Your task to perform on an android device: Search for "macbook pro" on costco, select the first entry, and add it to the cart. Image 0: 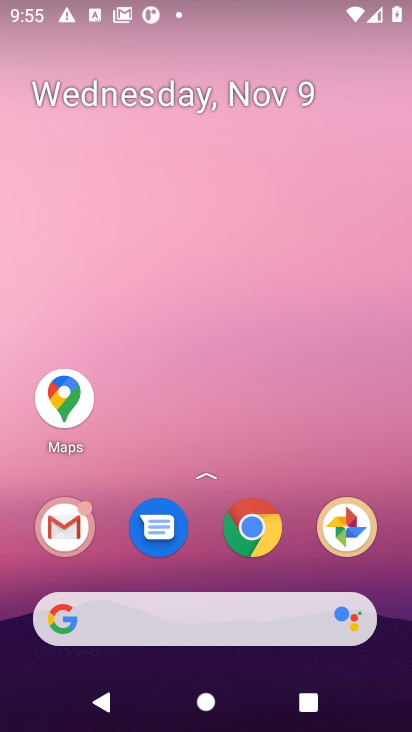
Step 0: click (262, 529)
Your task to perform on an android device: Search for "macbook pro" on costco, select the first entry, and add it to the cart. Image 1: 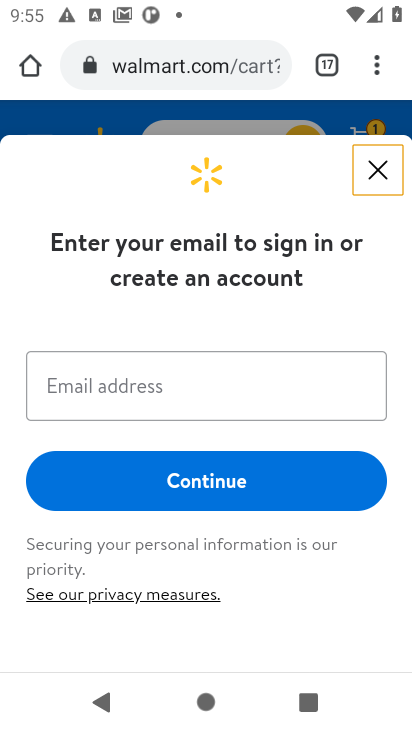
Step 1: click (181, 70)
Your task to perform on an android device: Search for "macbook pro" on costco, select the first entry, and add it to the cart. Image 2: 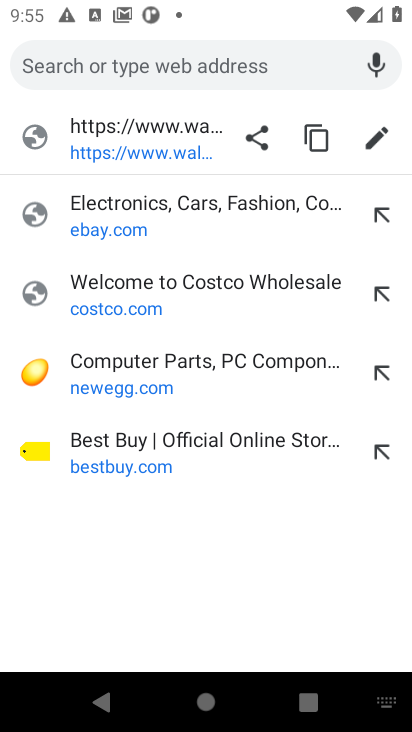
Step 2: click (124, 287)
Your task to perform on an android device: Search for "macbook pro" on costco, select the first entry, and add it to the cart. Image 3: 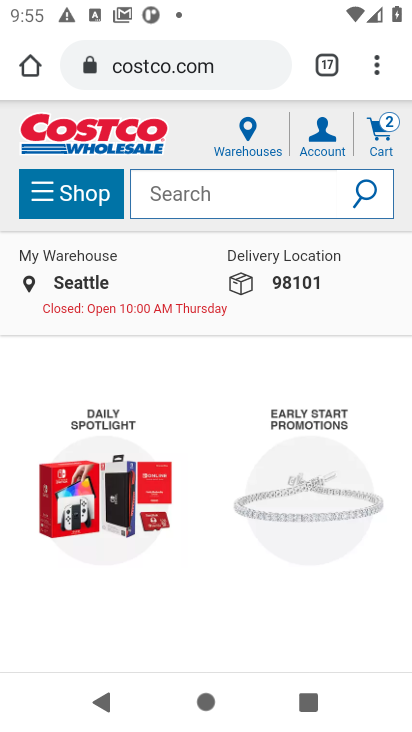
Step 3: click (178, 189)
Your task to perform on an android device: Search for "macbook pro" on costco, select the first entry, and add it to the cart. Image 4: 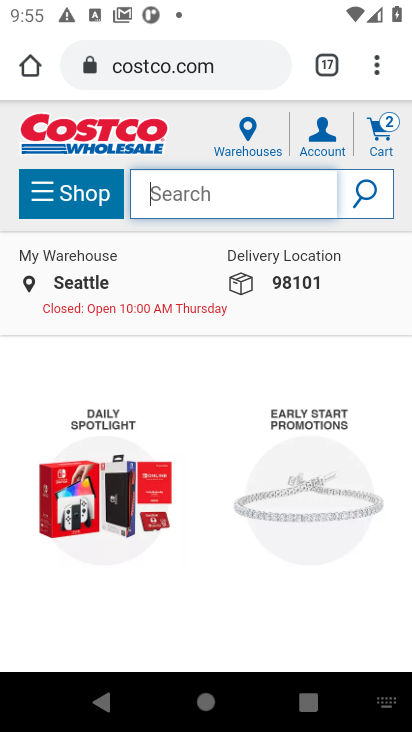
Step 4: type "macbook pro"
Your task to perform on an android device: Search for "macbook pro" on costco, select the first entry, and add it to the cart. Image 5: 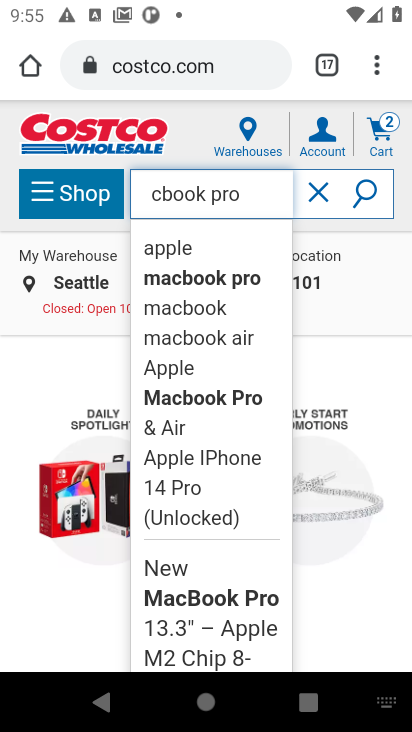
Step 5: click (364, 193)
Your task to perform on an android device: Search for "macbook pro" on costco, select the first entry, and add it to the cart. Image 6: 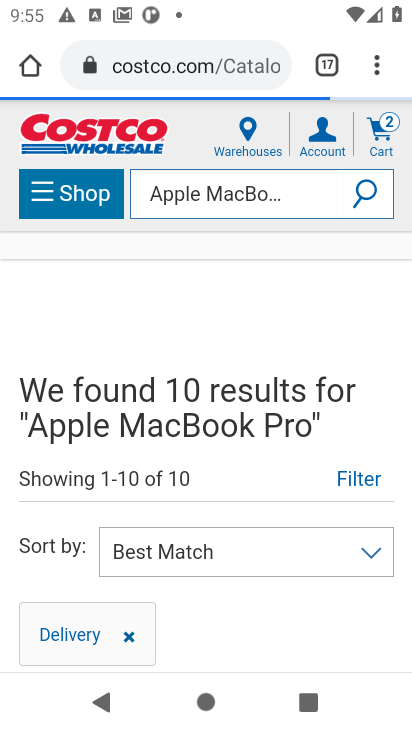
Step 6: drag from (203, 500) to (209, 213)
Your task to perform on an android device: Search for "macbook pro" on costco, select the first entry, and add it to the cart. Image 7: 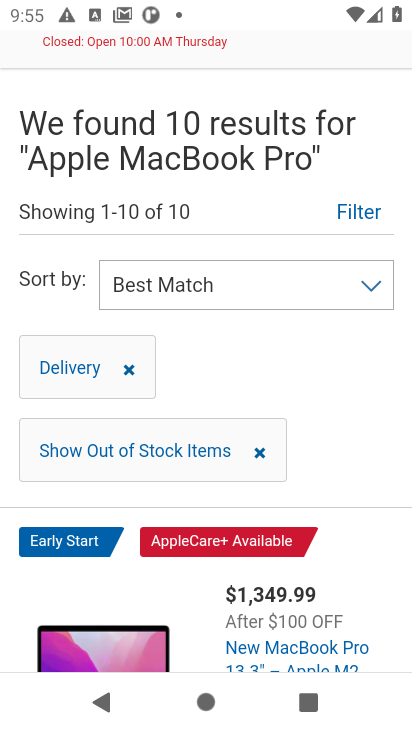
Step 7: drag from (212, 444) to (212, 201)
Your task to perform on an android device: Search for "macbook pro" on costco, select the first entry, and add it to the cart. Image 8: 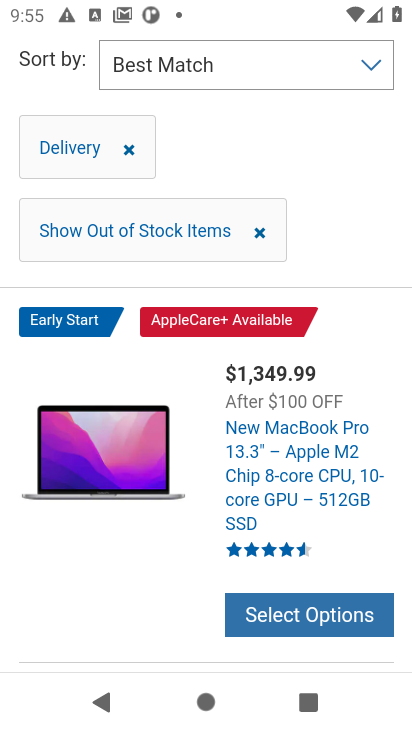
Step 8: click (219, 494)
Your task to perform on an android device: Search for "macbook pro" on costco, select the first entry, and add it to the cart. Image 9: 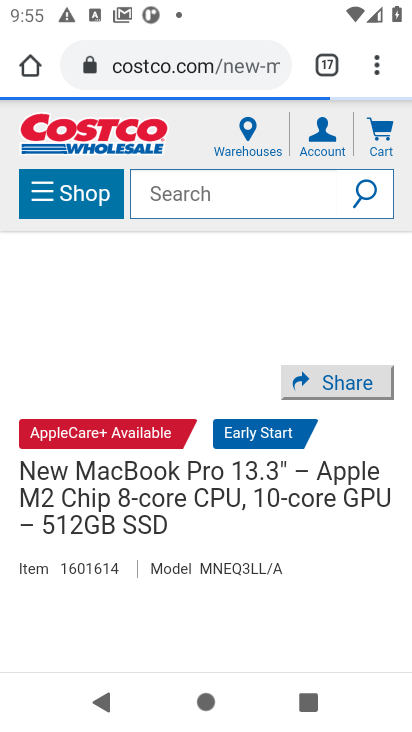
Step 9: drag from (207, 507) to (212, 162)
Your task to perform on an android device: Search for "macbook pro" on costco, select the first entry, and add it to the cart. Image 10: 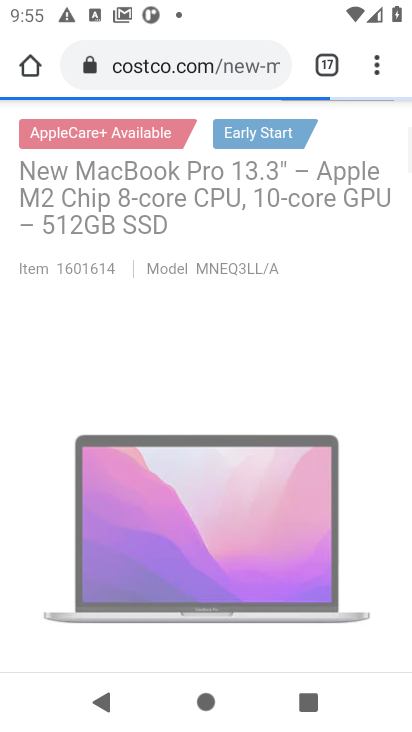
Step 10: drag from (190, 464) to (178, 173)
Your task to perform on an android device: Search for "macbook pro" on costco, select the first entry, and add it to the cart. Image 11: 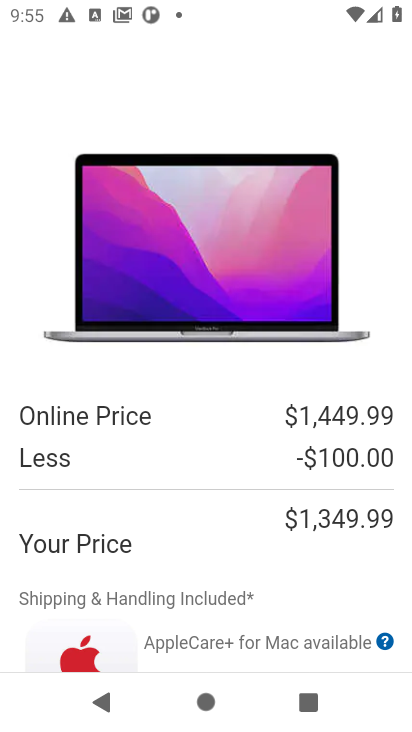
Step 11: drag from (173, 488) to (166, 150)
Your task to perform on an android device: Search for "macbook pro" on costco, select the first entry, and add it to the cart. Image 12: 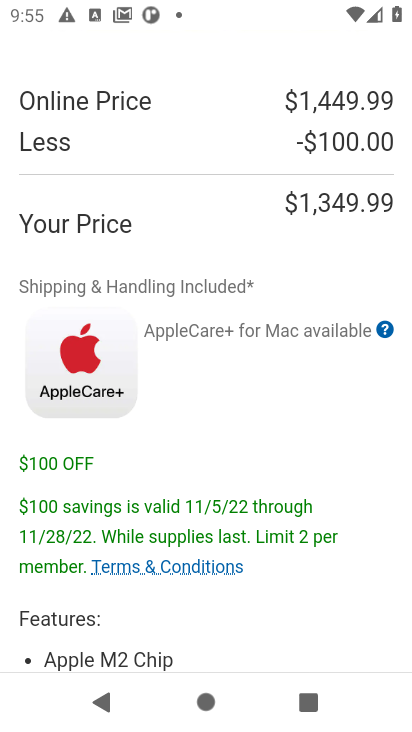
Step 12: drag from (166, 420) to (161, 160)
Your task to perform on an android device: Search for "macbook pro" on costco, select the first entry, and add it to the cart. Image 13: 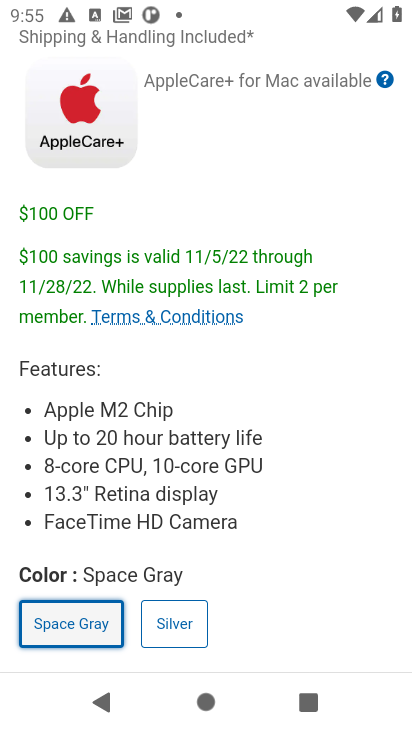
Step 13: drag from (182, 417) to (180, 148)
Your task to perform on an android device: Search for "macbook pro" on costco, select the first entry, and add it to the cart. Image 14: 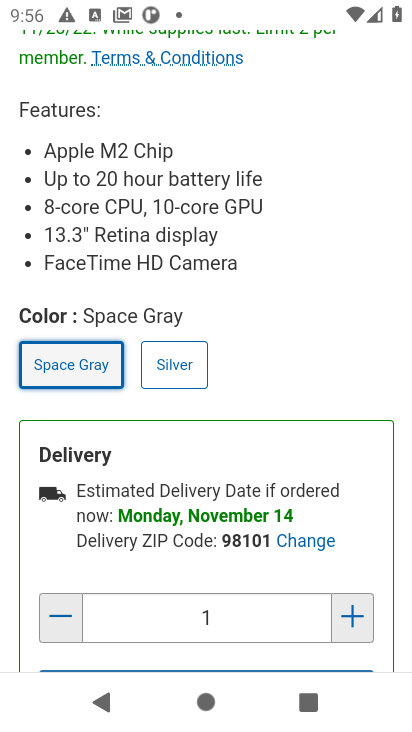
Step 14: drag from (196, 521) to (196, 219)
Your task to perform on an android device: Search for "macbook pro" on costco, select the first entry, and add it to the cart. Image 15: 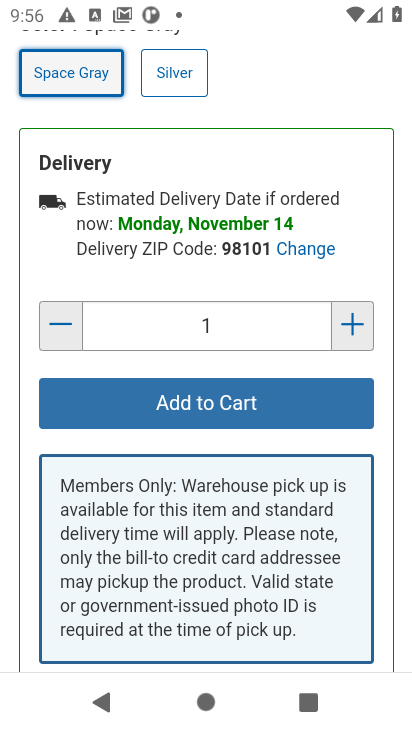
Step 15: click (183, 406)
Your task to perform on an android device: Search for "macbook pro" on costco, select the first entry, and add it to the cart. Image 16: 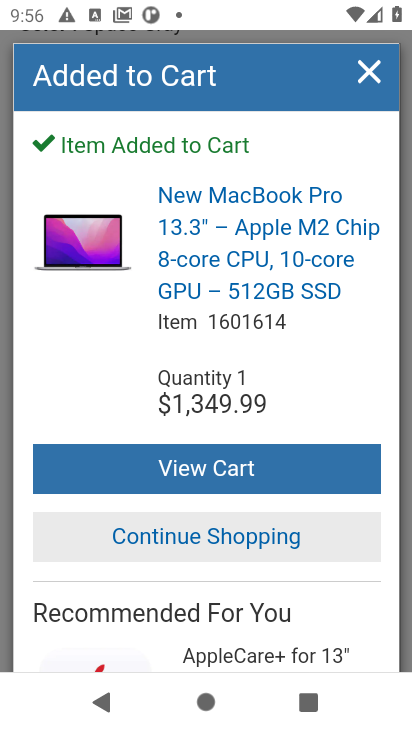
Step 16: task complete